Your task to perform on an android device: What's the weather going to be this weekend? Image 0: 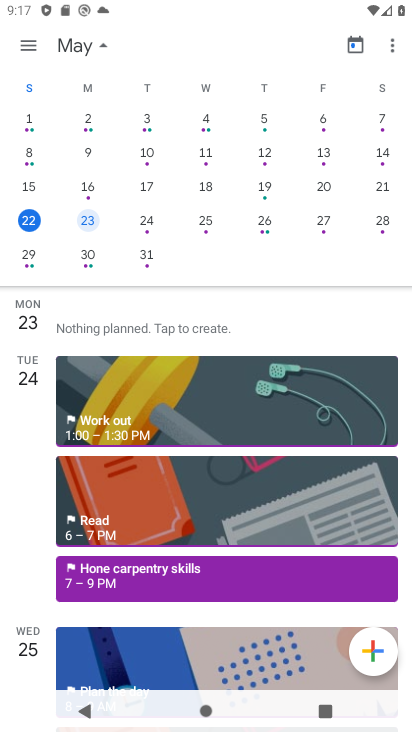
Step 0: press home button
Your task to perform on an android device: What's the weather going to be this weekend? Image 1: 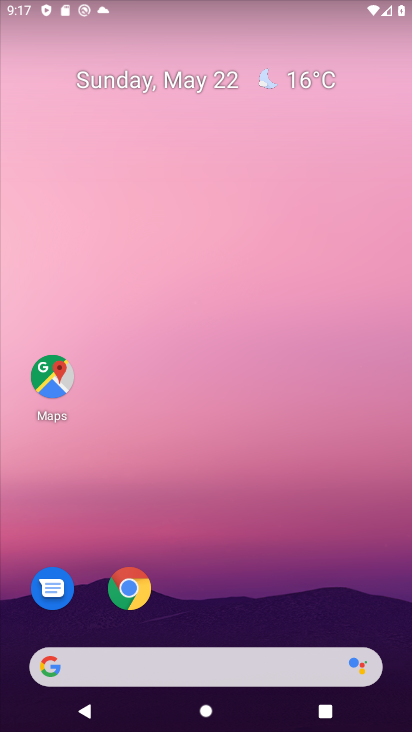
Step 1: drag from (238, 628) to (244, 125)
Your task to perform on an android device: What's the weather going to be this weekend? Image 2: 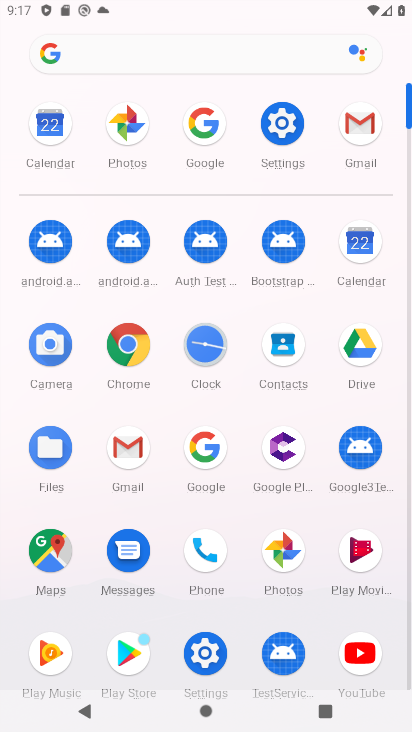
Step 2: click (205, 450)
Your task to perform on an android device: What's the weather going to be this weekend? Image 3: 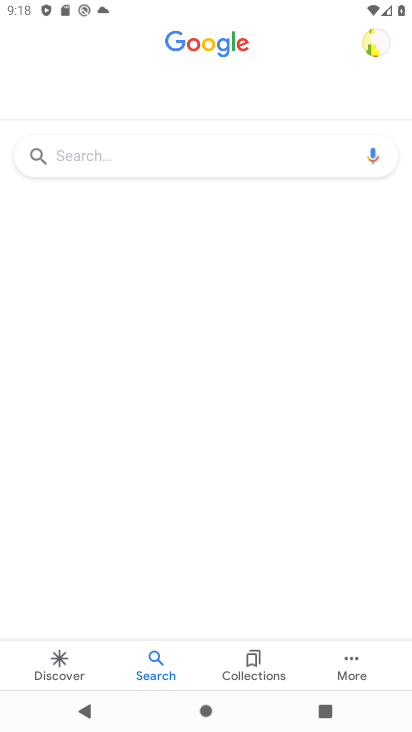
Step 3: click (195, 158)
Your task to perform on an android device: What's the weather going to be this weekend? Image 4: 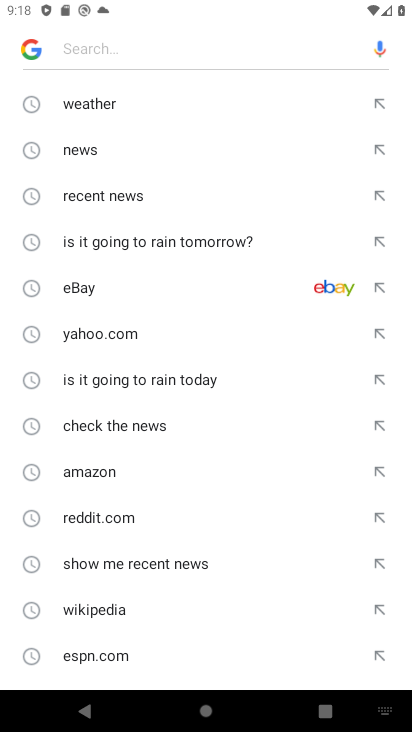
Step 4: click (100, 114)
Your task to perform on an android device: What's the weather going to be this weekend? Image 5: 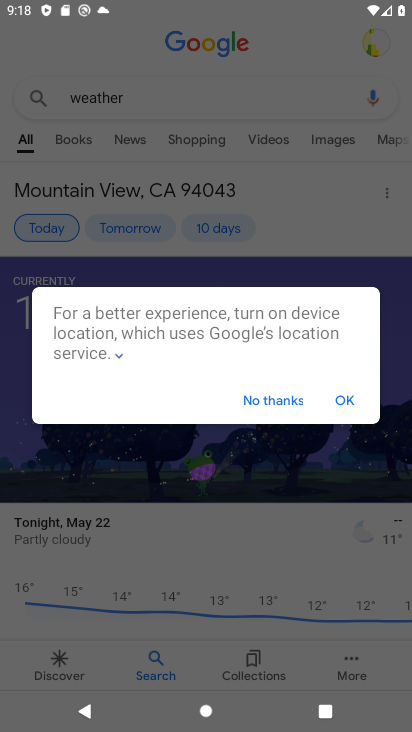
Step 5: click (295, 395)
Your task to perform on an android device: What's the weather going to be this weekend? Image 6: 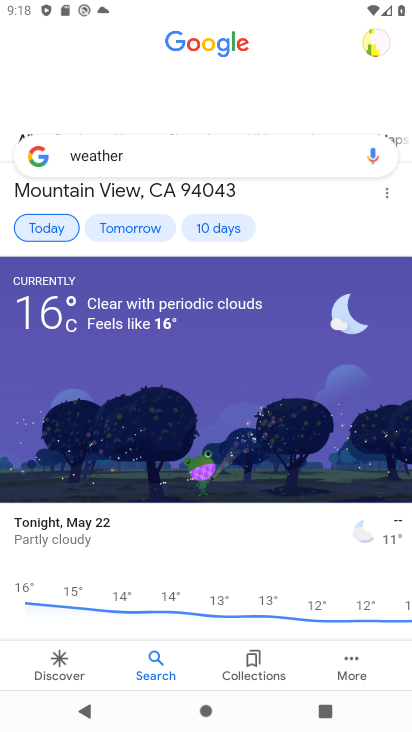
Step 6: click (228, 223)
Your task to perform on an android device: What's the weather going to be this weekend? Image 7: 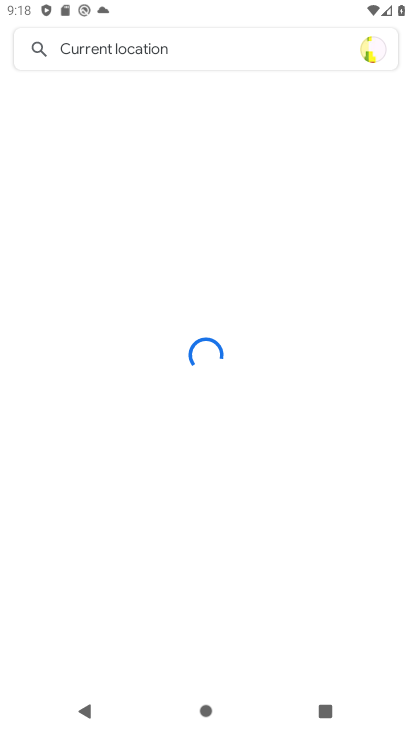
Step 7: click (228, 223)
Your task to perform on an android device: What's the weather going to be this weekend? Image 8: 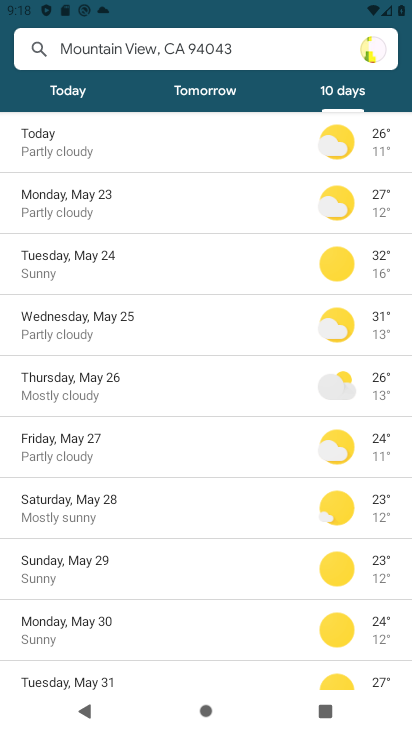
Step 8: task complete